Your task to perform on an android device: add a contact in the contacts app Image 0: 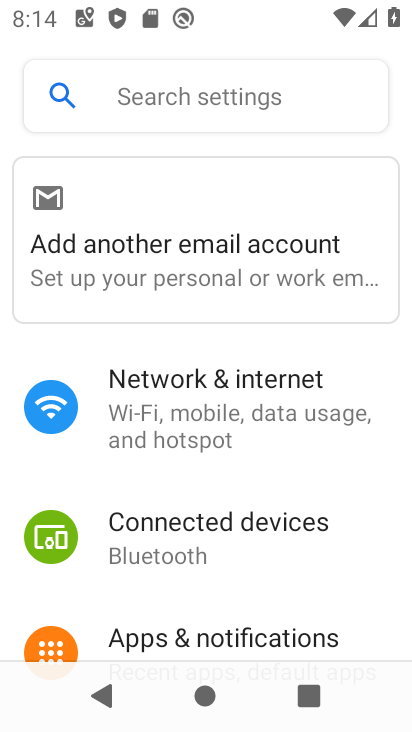
Step 0: press home button
Your task to perform on an android device: add a contact in the contacts app Image 1: 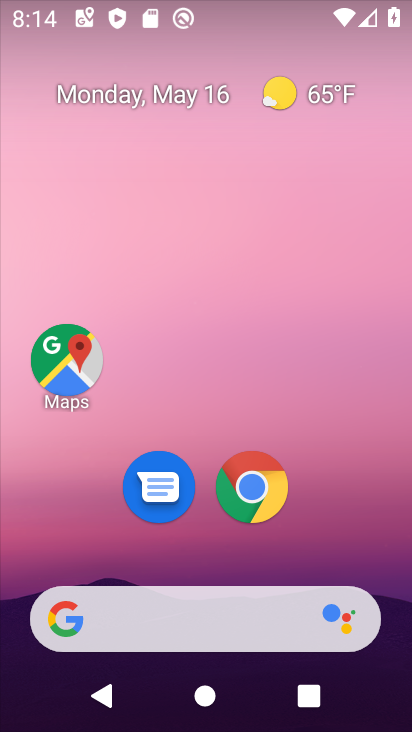
Step 1: drag from (367, 552) to (374, 129)
Your task to perform on an android device: add a contact in the contacts app Image 2: 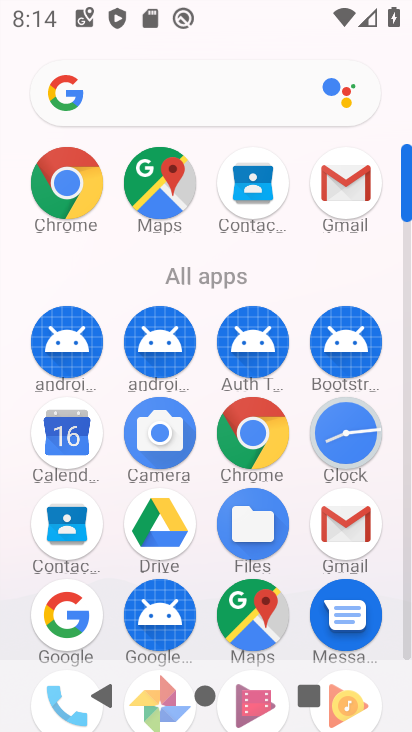
Step 2: click (57, 532)
Your task to perform on an android device: add a contact in the contacts app Image 3: 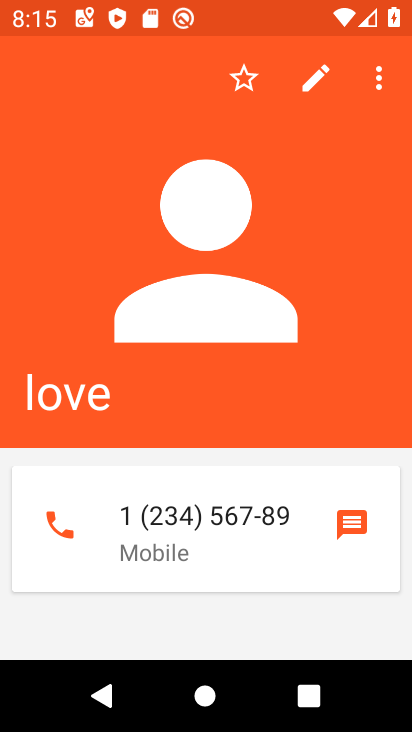
Step 3: press back button
Your task to perform on an android device: add a contact in the contacts app Image 4: 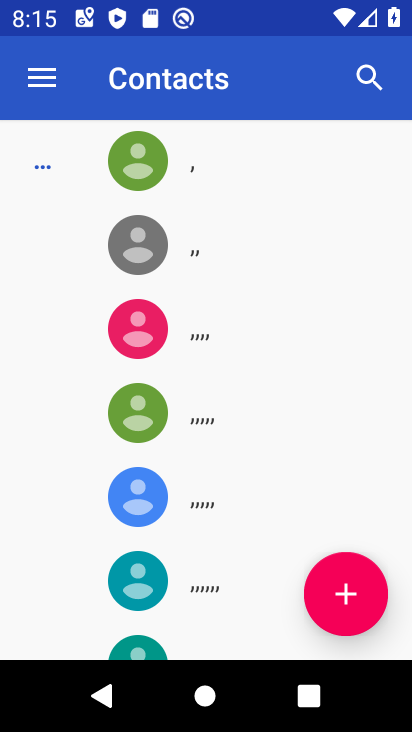
Step 4: click (357, 599)
Your task to perform on an android device: add a contact in the contacts app Image 5: 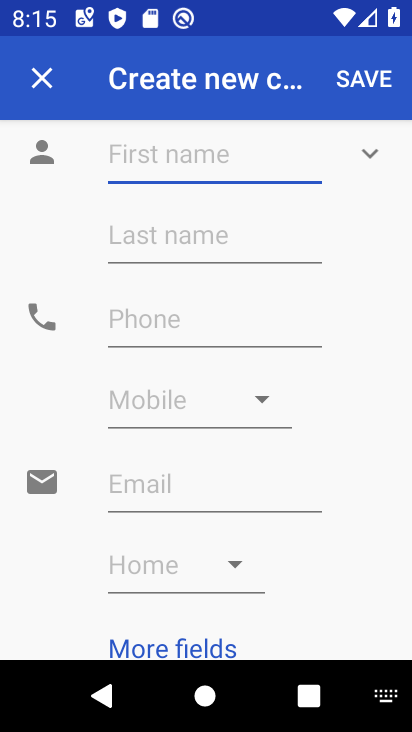
Step 5: type "poo"
Your task to perform on an android device: add a contact in the contacts app Image 6: 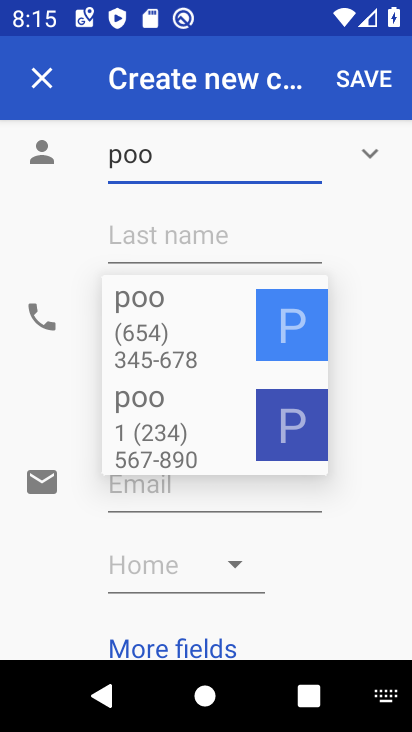
Step 6: click (371, 312)
Your task to perform on an android device: add a contact in the contacts app Image 7: 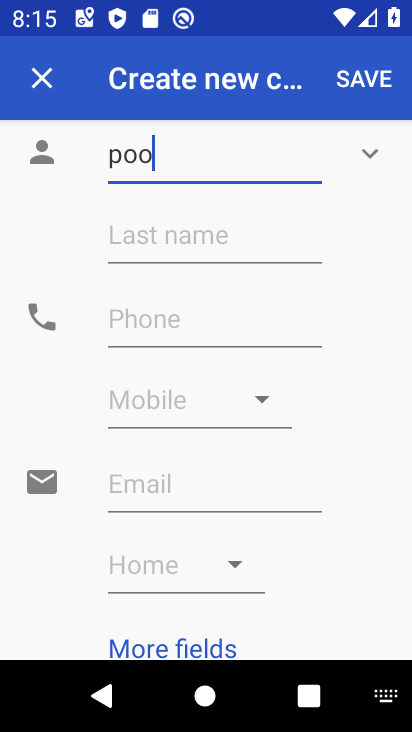
Step 7: click (217, 346)
Your task to perform on an android device: add a contact in the contacts app Image 8: 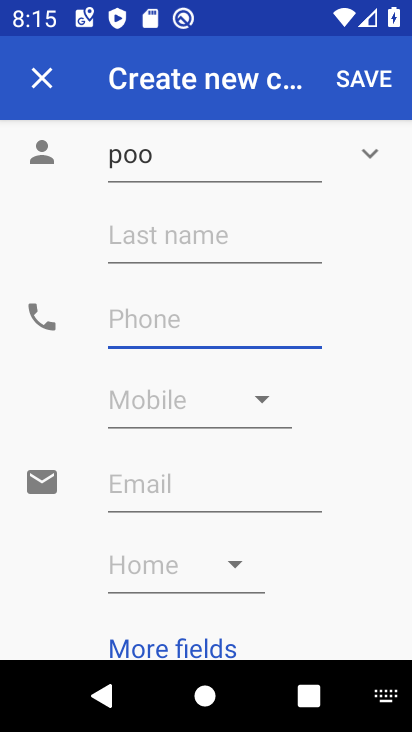
Step 8: type "123456789"
Your task to perform on an android device: add a contact in the contacts app Image 9: 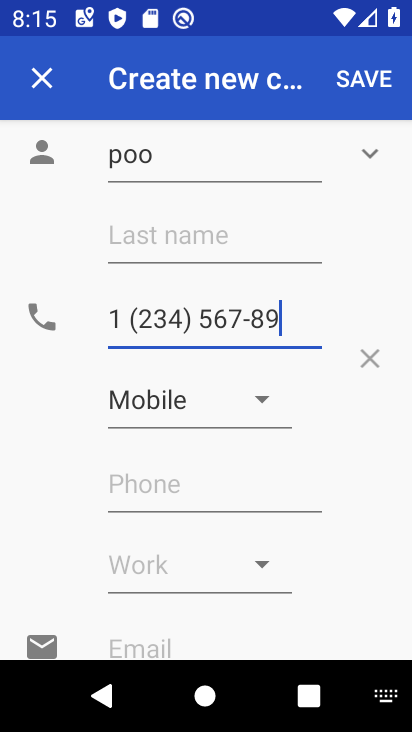
Step 9: click (358, 95)
Your task to perform on an android device: add a contact in the contacts app Image 10: 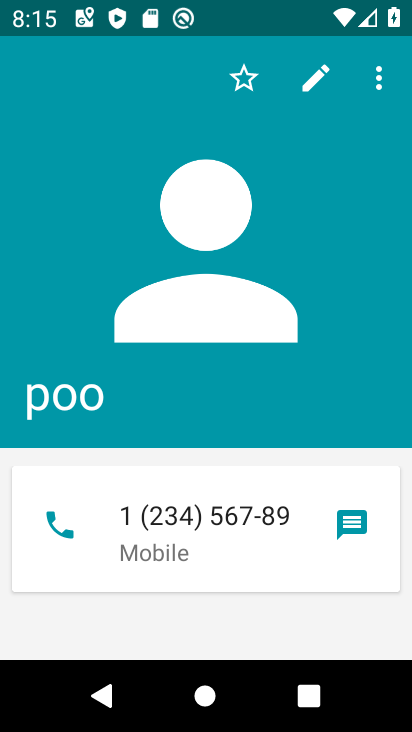
Step 10: task complete